Your task to perform on an android device: open device folders in google photos Image 0: 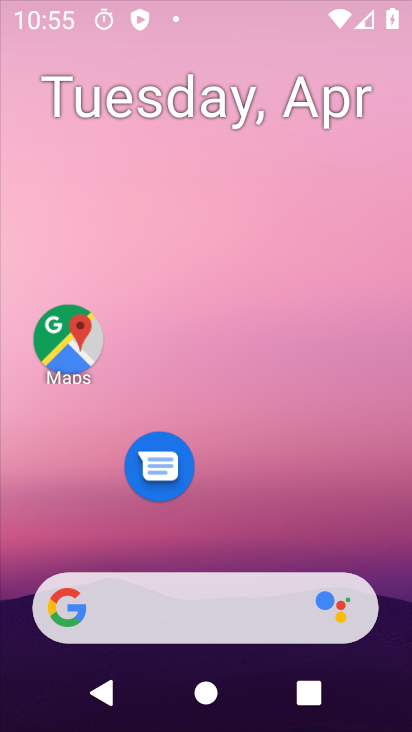
Step 0: drag from (284, 491) to (254, 123)
Your task to perform on an android device: open device folders in google photos Image 1: 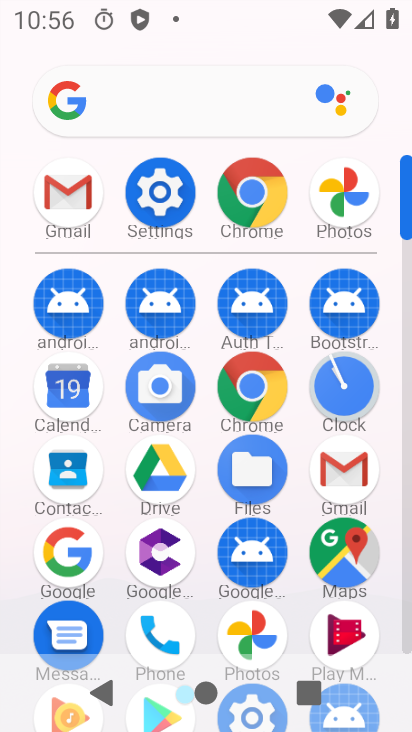
Step 1: click (254, 628)
Your task to perform on an android device: open device folders in google photos Image 2: 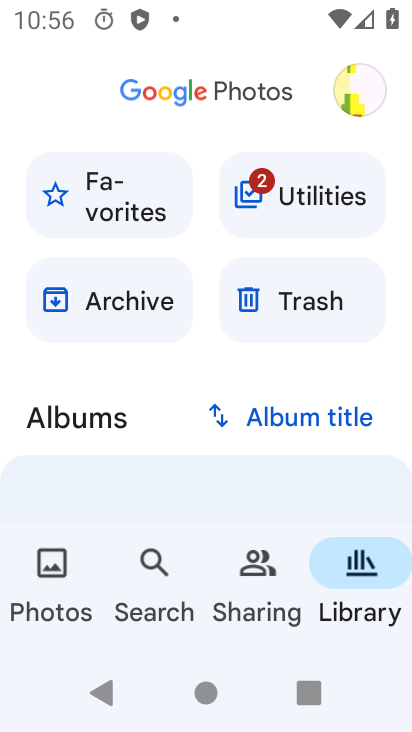
Step 2: click (370, 113)
Your task to perform on an android device: open device folders in google photos Image 3: 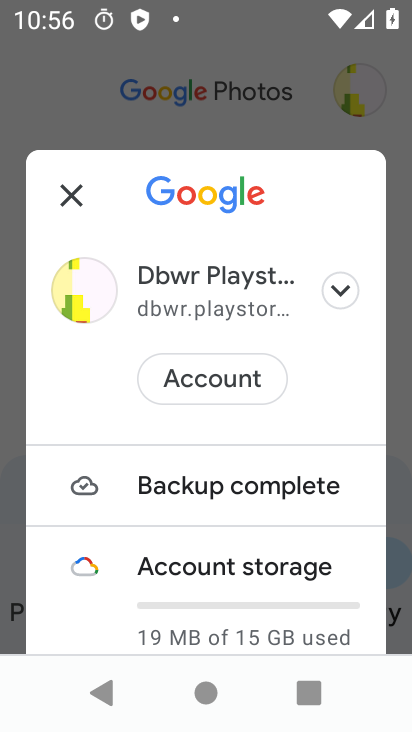
Step 3: drag from (256, 480) to (301, 281)
Your task to perform on an android device: open device folders in google photos Image 4: 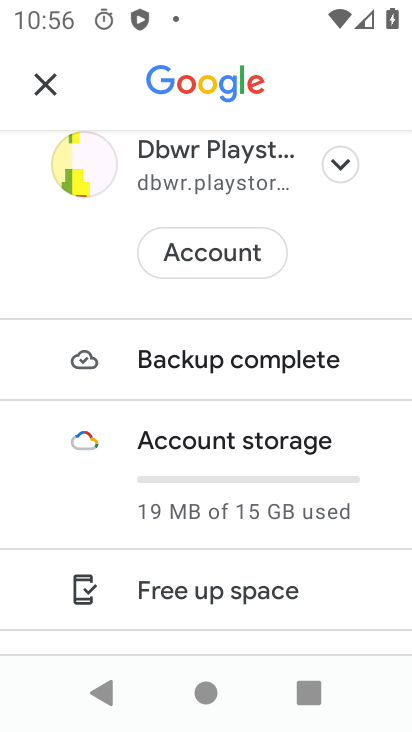
Step 4: drag from (202, 570) to (315, 252)
Your task to perform on an android device: open device folders in google photos Image 5: 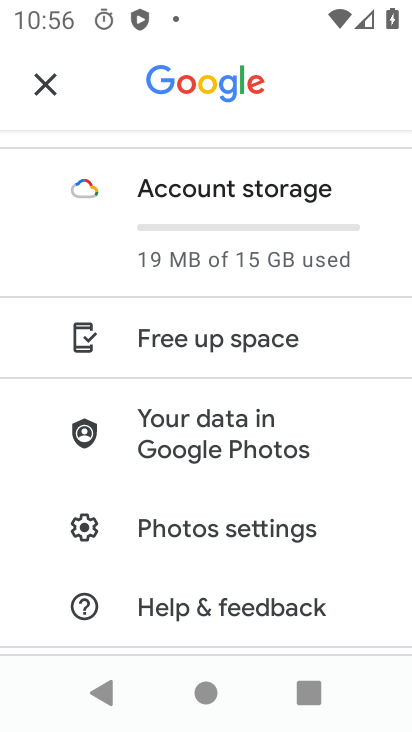
Step 5: click (286, 505)
Your task to perform on an android device: open device folders in google photos Image 6: 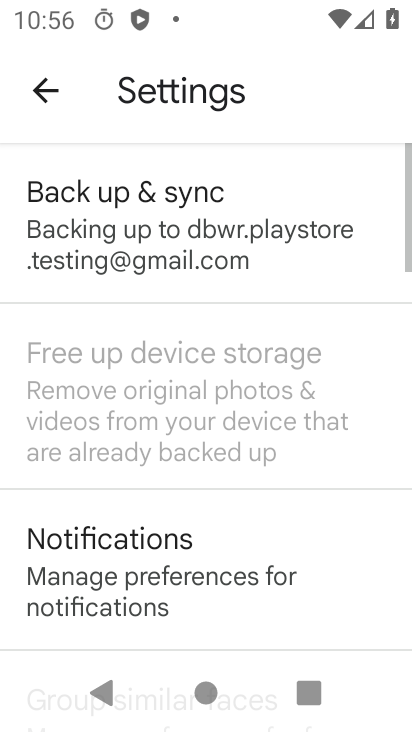
Step 6: task complete